Your task to perform on an android device: change the clock style Image 0: 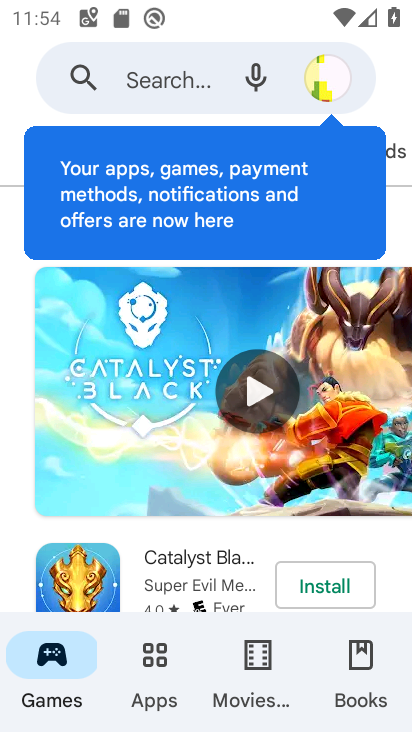
Step 0: press home button
Your task to perform on an android device: change the clock style Image 1: 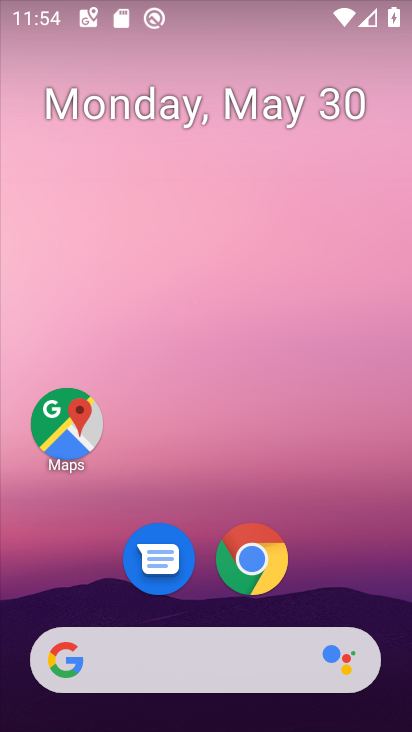
Step 1: drag from (360, 579) to (305, 14)
Your task to perform on an android device: change the clock style Image 2: 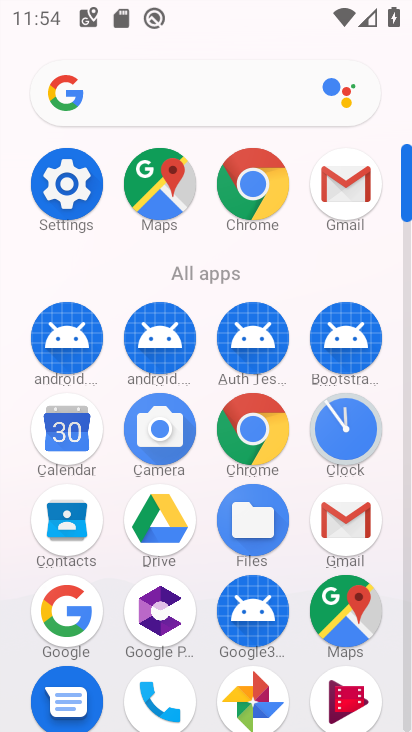
Step 2: click (350, 429)
Your task to perform on an android device: change the clock style Image 3: 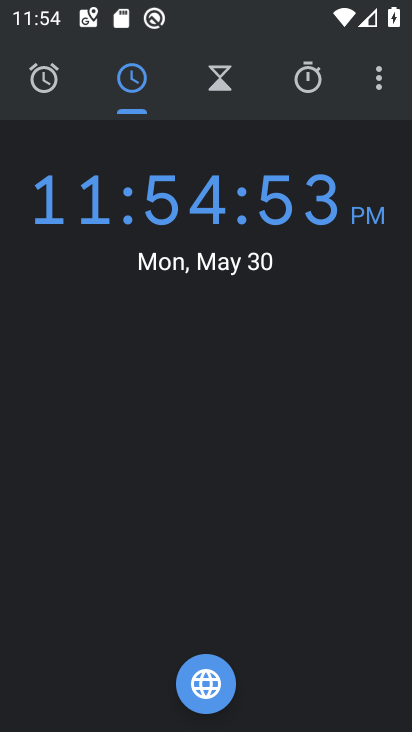
Step 3: click (381, 96)
Your task to perform on an android device: change the clock style Image 4: 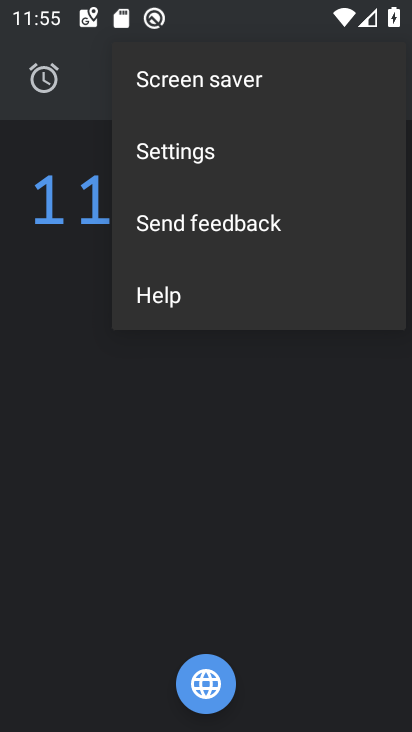
Step 4: click (318, 157)
Your task to perform on an android device: change the clock style Image 5: 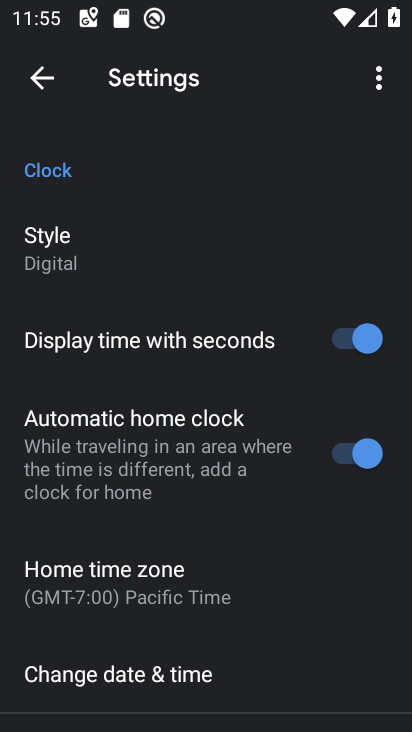
Step 5: click (167, 240)
Your task to perform on an android device: change the clock style Image 6: 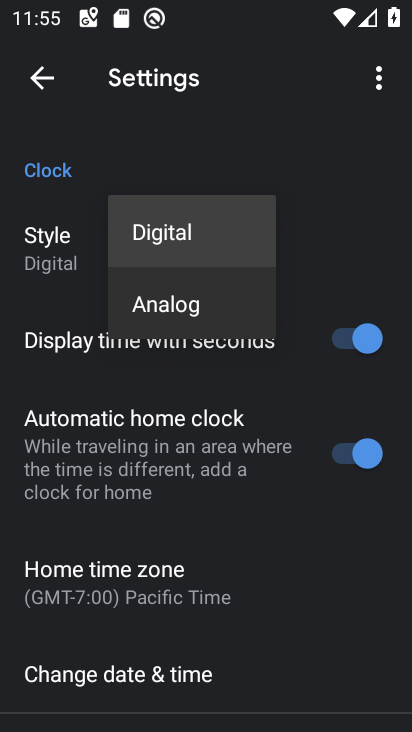
Step 6: click (154, 313)
Your task to perform on an android device: change the clock style Image 7: 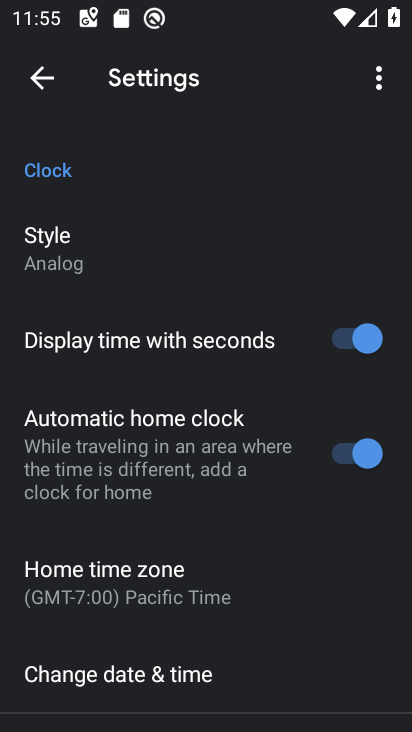
Step 7: task complete